Your task to perform on an android device: Go to settings Image 0: 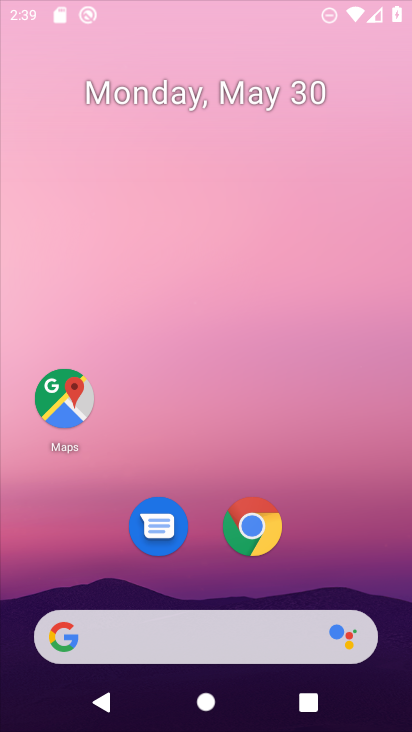
Step 0: drag from (277, 630) to (283, 153)
Your task to perform on an android device: Go to settings Image 1: 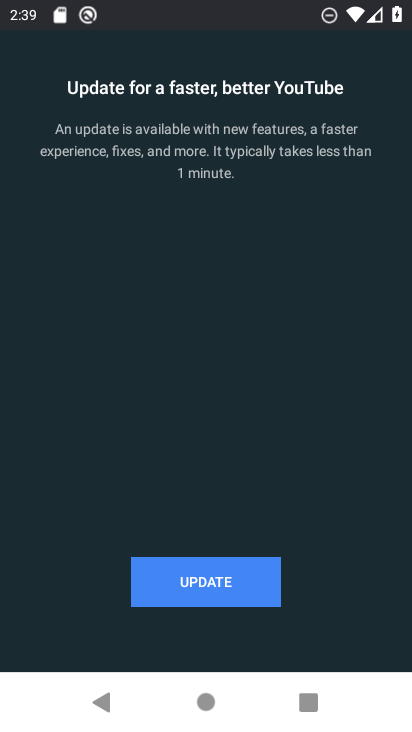
Step 1: click (200, 576)
Your task to perform on an android device: Go to settings Image 2: 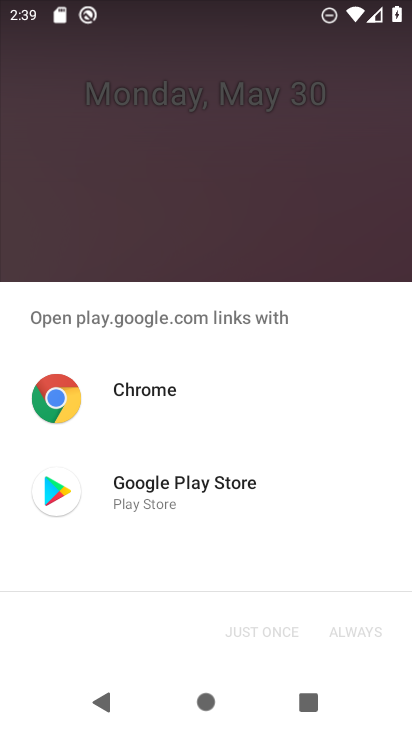
Step 2: click (184, 207)
Your task to perform on an android device: Go to settings Image 3: 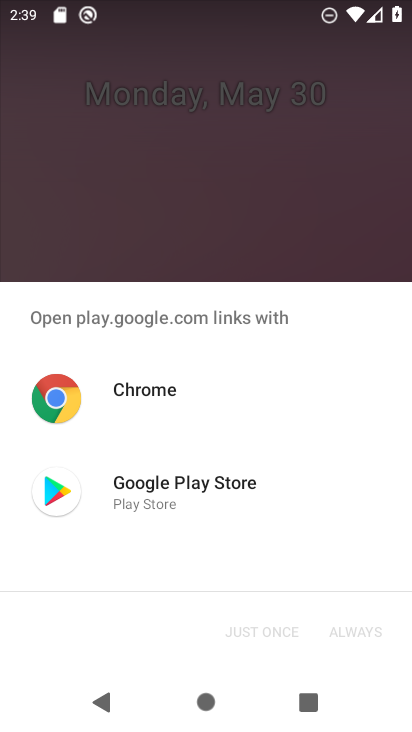
Step 3: click (184, 207)
Your task to perform on an android device: Go to settings Image 4: 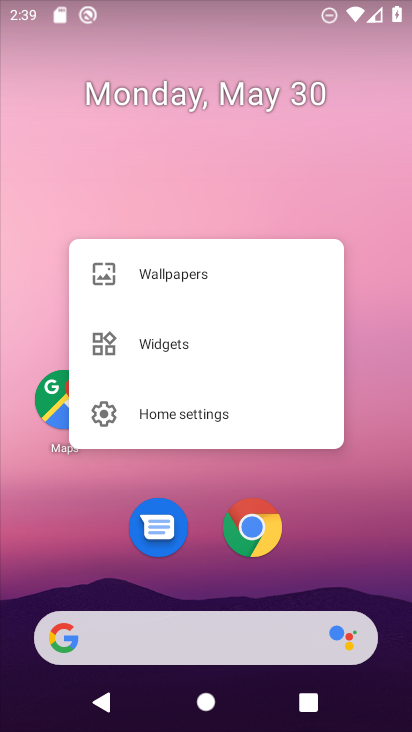
Step 4: click (184, 207)
Your task to perform on an android device: Go to settings Image 5: 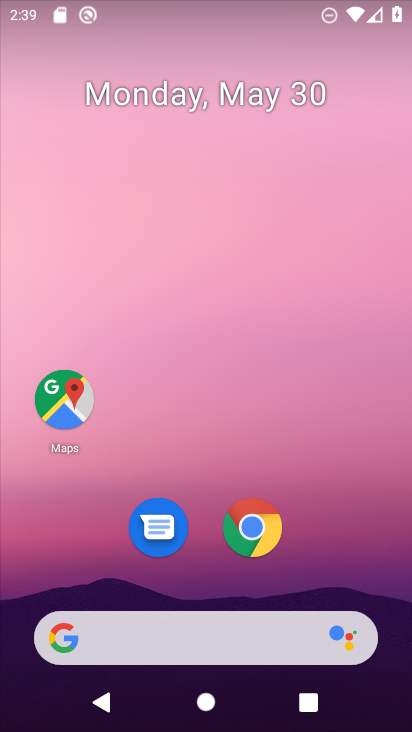
Step 5: press back button
Your task to perform on an android device: Go to settings Image 6: 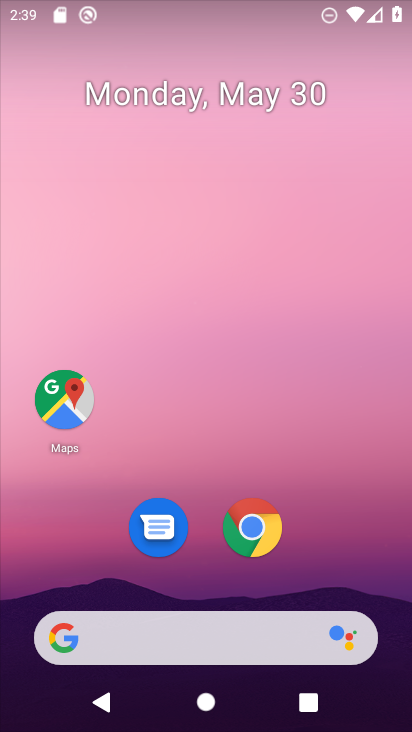
Step 6: drag from (266, 674) to (167, 236)
Your task to perform on an android device: Go to settings Image 7: 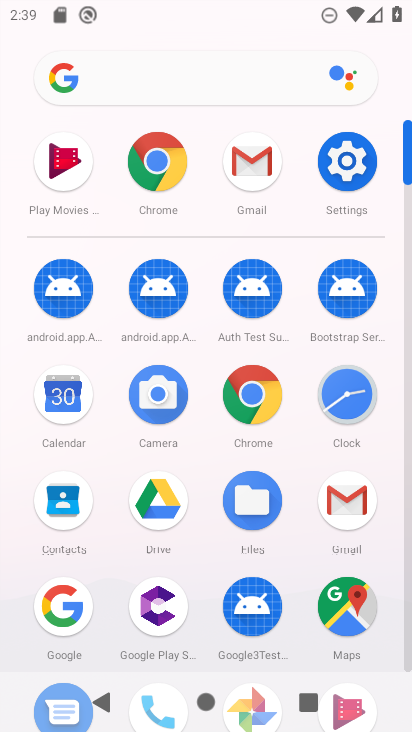
Step 7: click (343, 160)
Your task to perform on an android device: Go to settings Image 8: 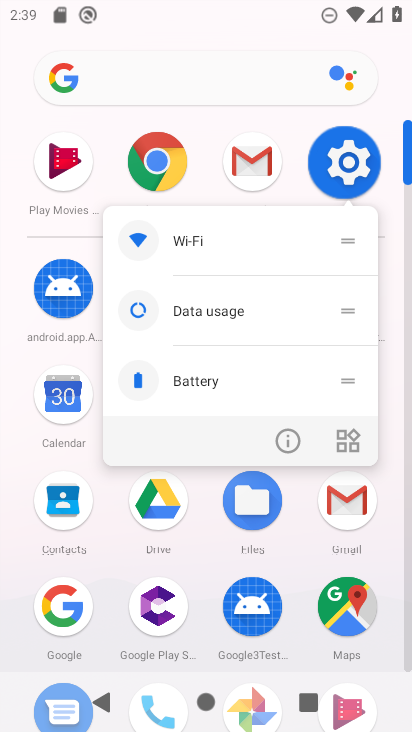
Step 8: click (340, 162)
Your task to perform on an android device: Go to settings Image 9: 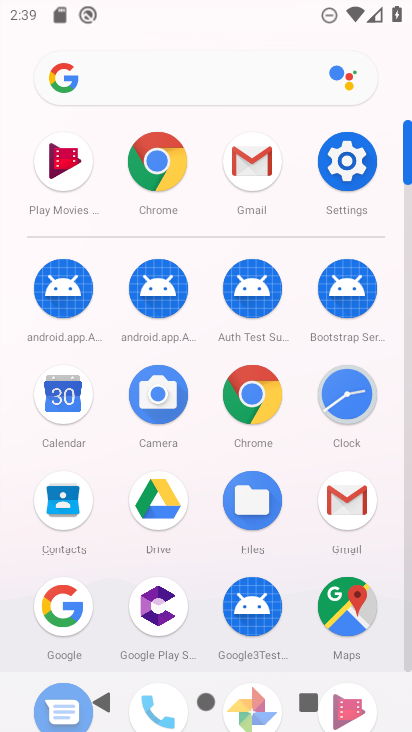
Step 9: click (361, 153)
Your task to perform on an android device: Go to settings Image 10: 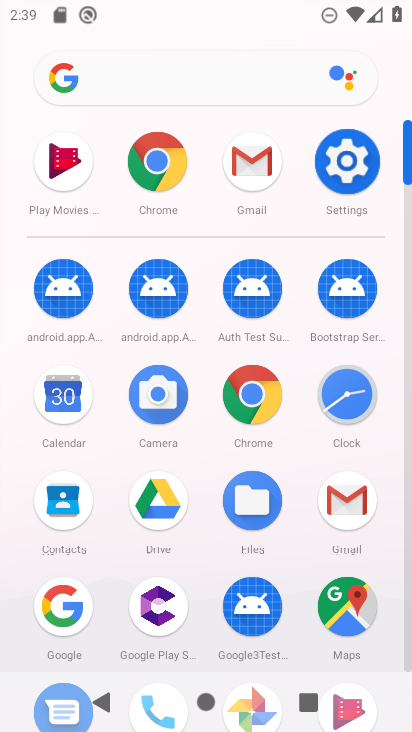
Step 10: click (359, 158)
Your task to perform on an android device: Go to settings Image 11: 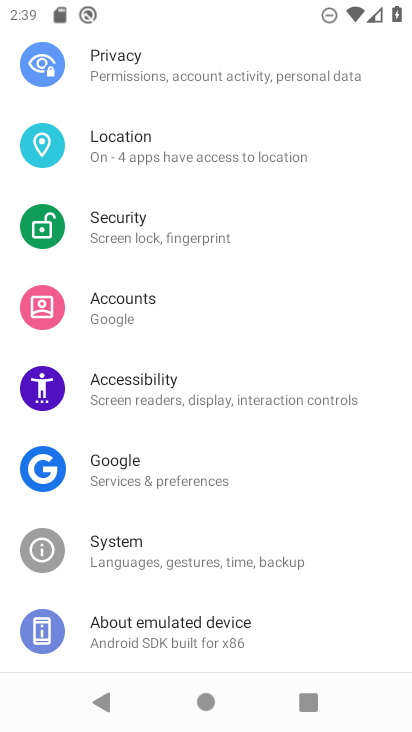
Step 11: click (357, 161)
Your task to perform on an android device: Go to settings Image 12: 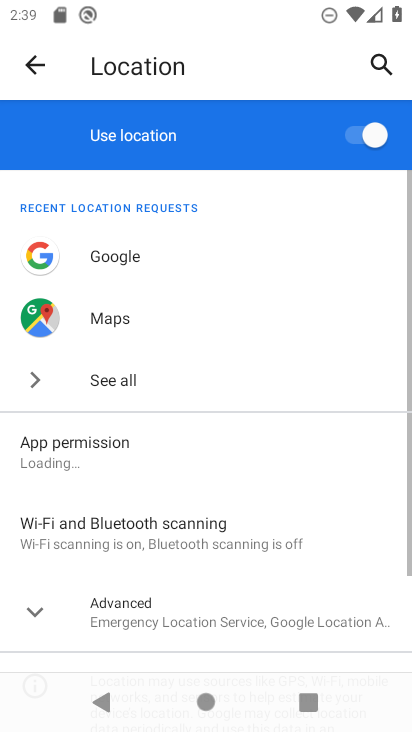
Step 12: task complete